Your task to perform on an android device: Go to CNN.com Image 0: 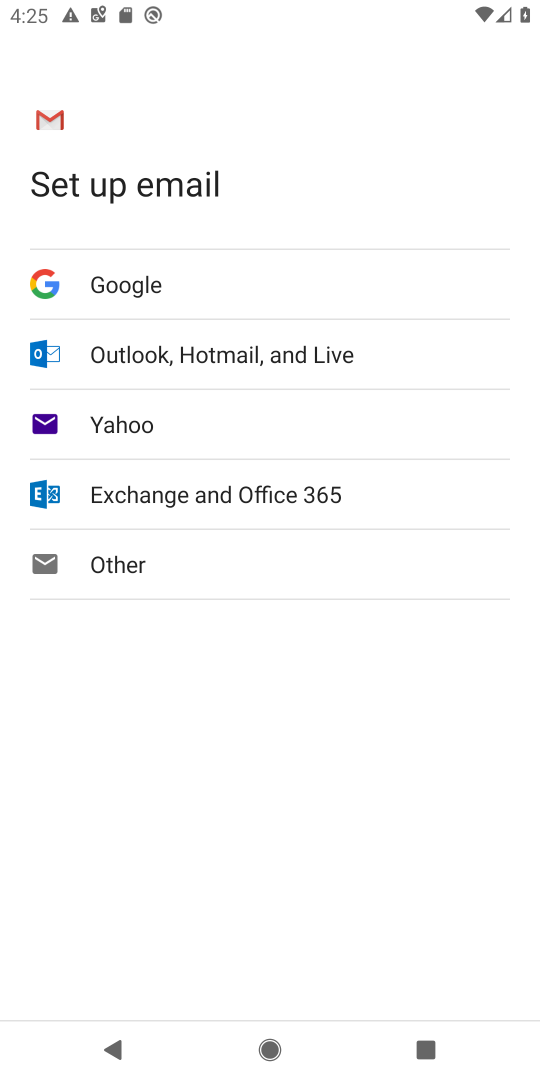
Step 0: press back button
Your task to perform on an android device: Go to CNN.com Image 1: 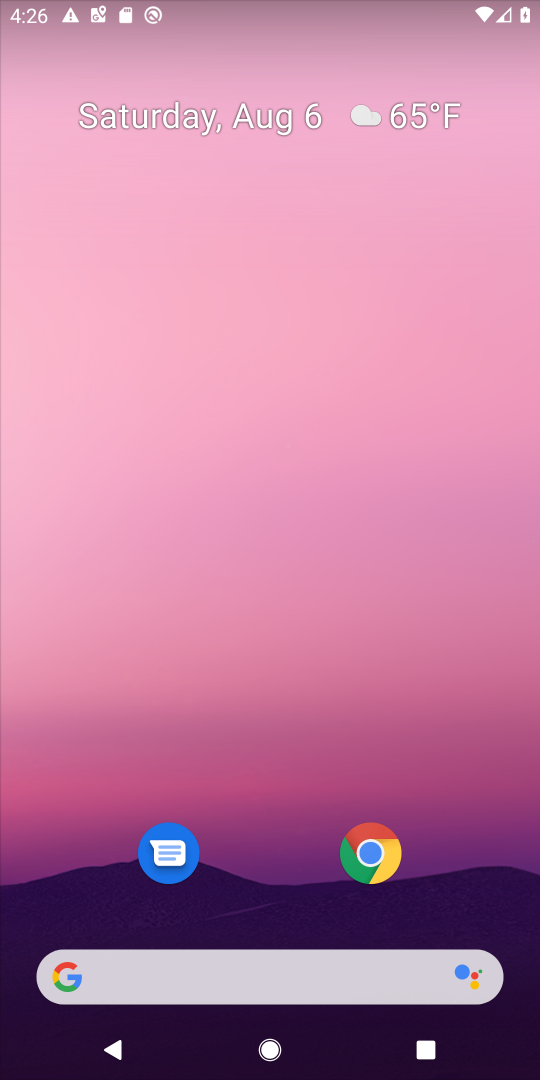
Step 1: click (369, 859)
Your task to perform on an android device: Go to CNN.com Image 2: 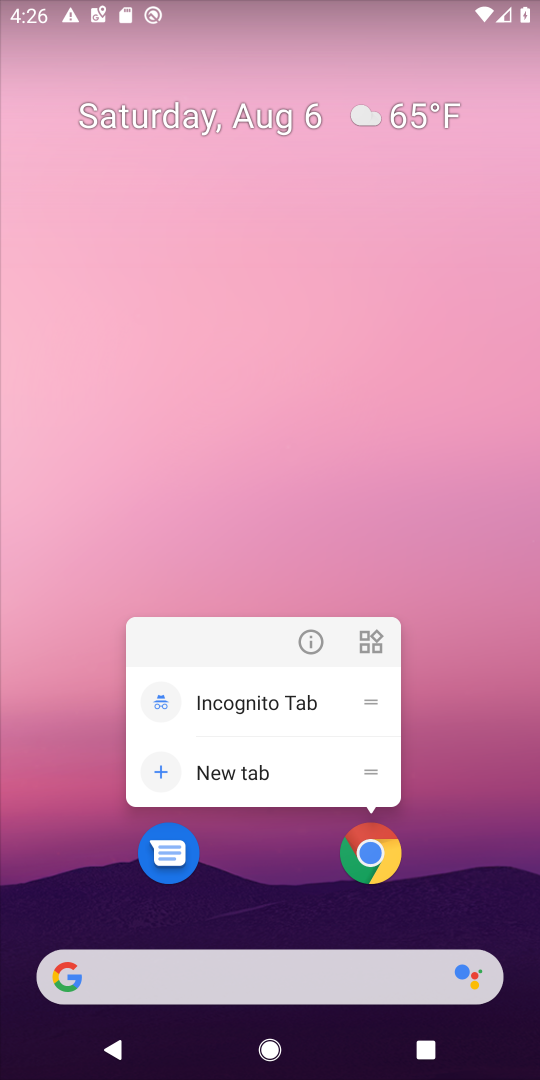
Step 2: click (383, 859)
Your task to perform on an android device: Go to CNN.com Image 3: 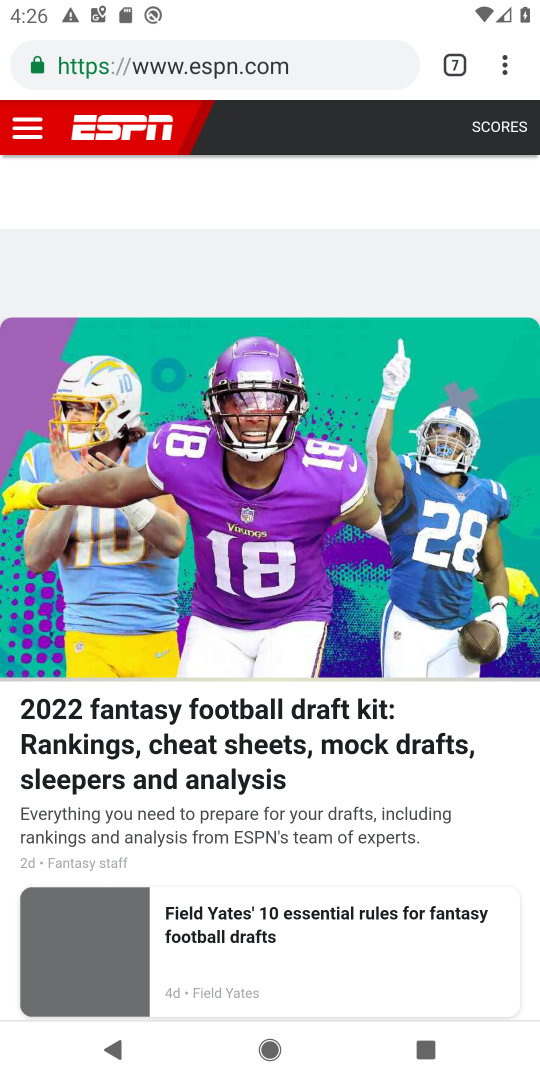
Step 3: click (456, 59)
Your task to perform on an android device: Go to CNN.com Image 4: 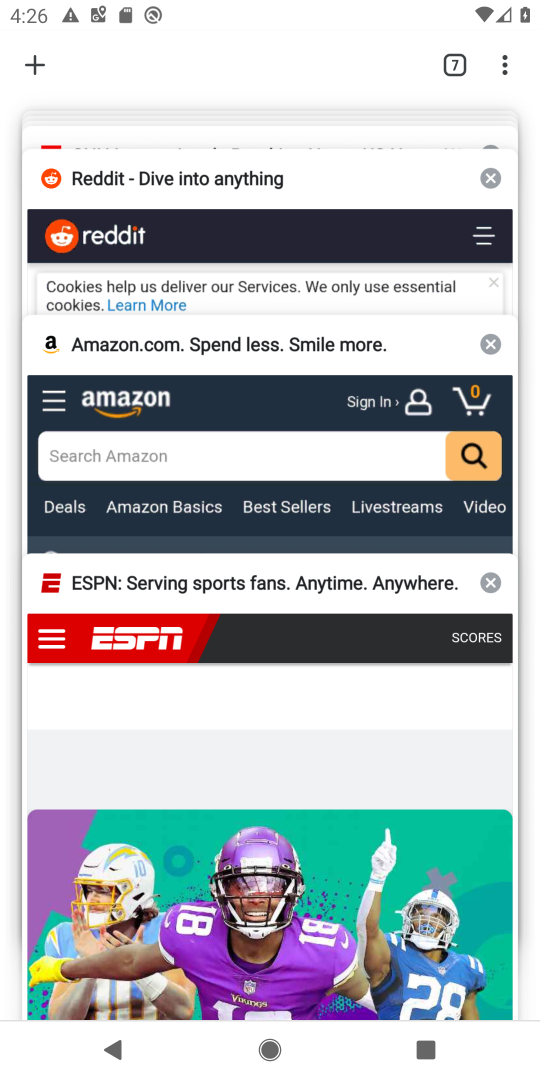
Step 4: drag from (245, 216) to (197, 767)
Your task to perform on an android device: Go to CNN.com Image 5: 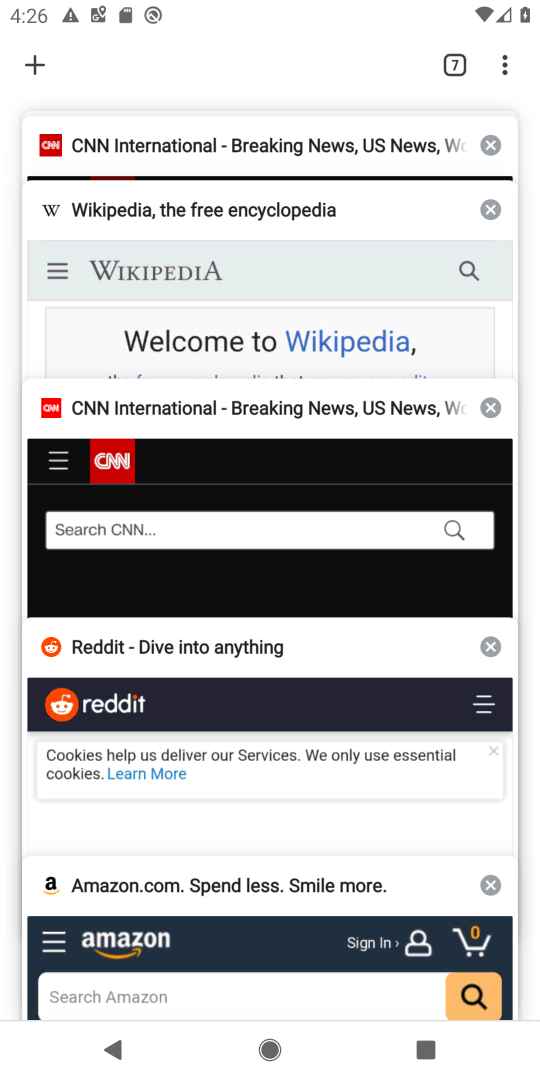
Step 5: click (111, 401)
Your task to perform on an android device: Go to CNN.com Image 6: 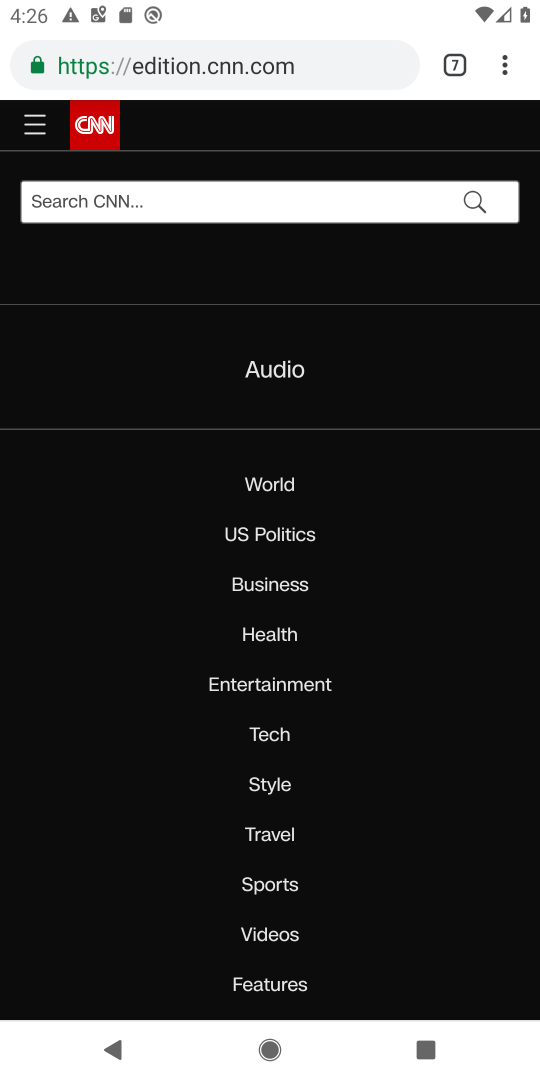
Step 6: task complete